Your task to perform on an android device: Show me recent news Image 0: 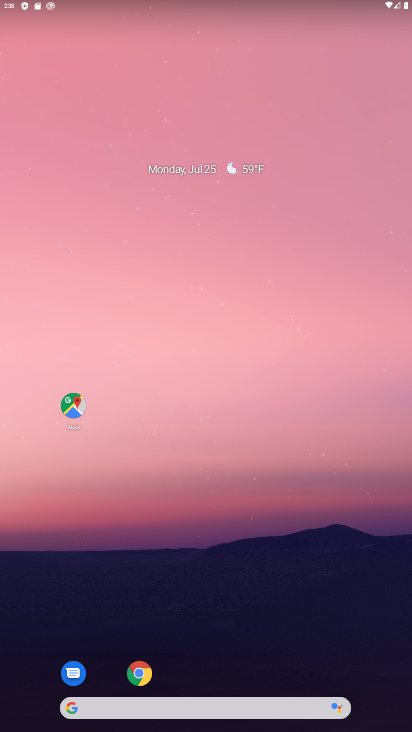
Step 0: click (144, 711)
Your task to perform on an android device: Show me recent news Image 1: 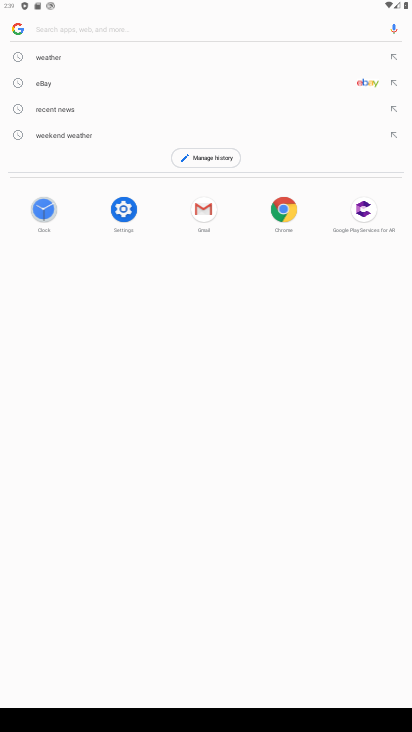
Step 1: click (62, 109)
Your task to perform on an android device: Show me recent news Image 2: 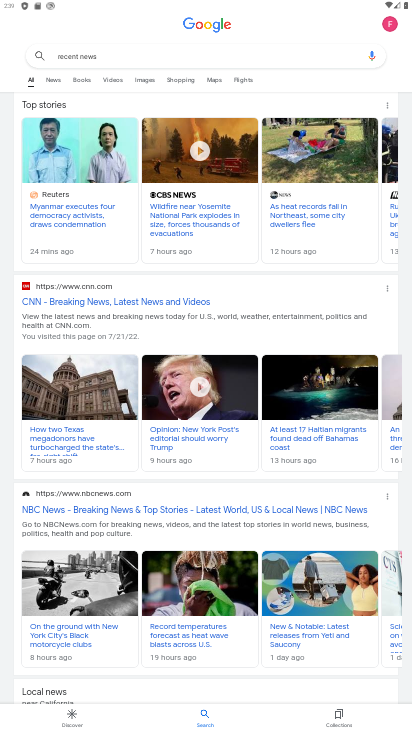
Step 2: task complete